Your task to perform on an android device: When is my next meeting? Image 0: 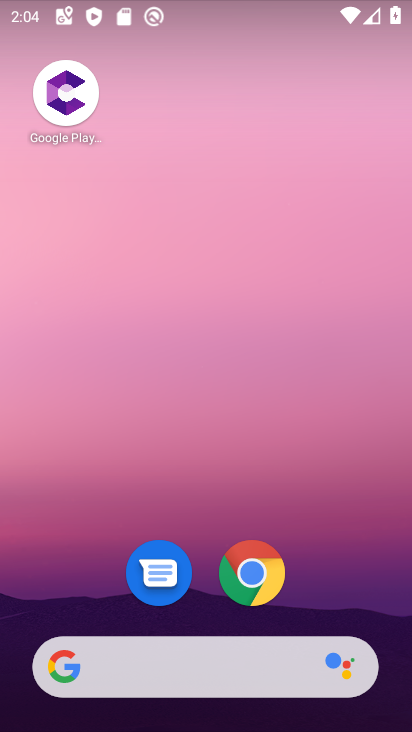
Step 0: drag from (203, 583) to (227, 203)
Your task to perform on an android device: When is my next meeting? Image 1: 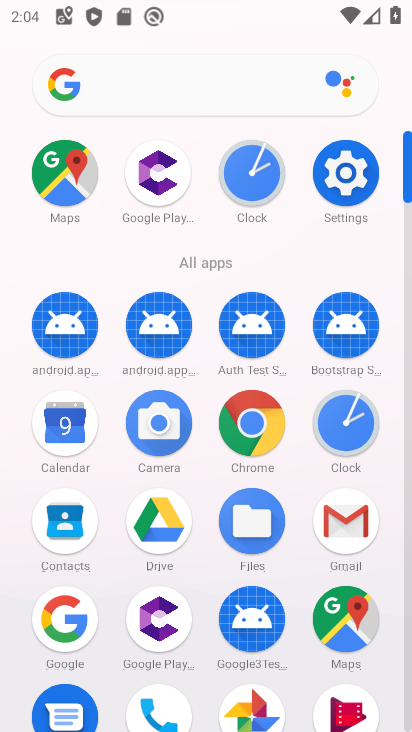
Step 1: click (62, 427)
Your task to perform on an android device: When is my next meeting? Image 2: 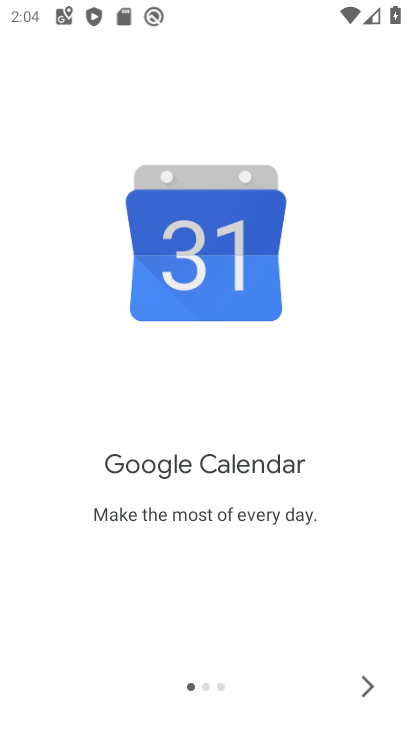
Step 2: click (361, 672)
Your task to perform on an android device: When is my next meeting? Image 3: 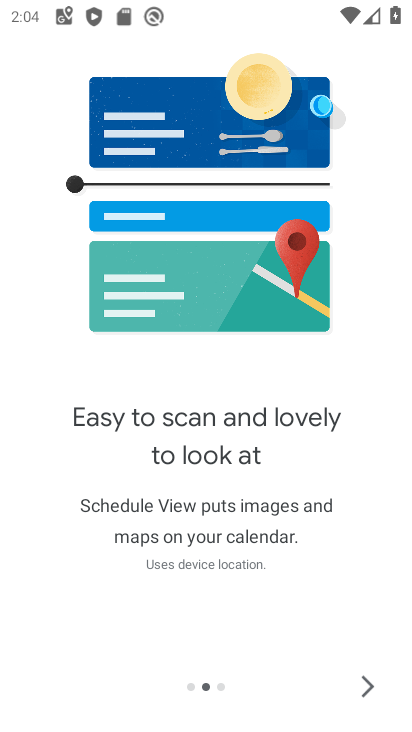
Step 3: click (362, 677)
Your task to perform on an android device: When is my next meeting? Image 4: 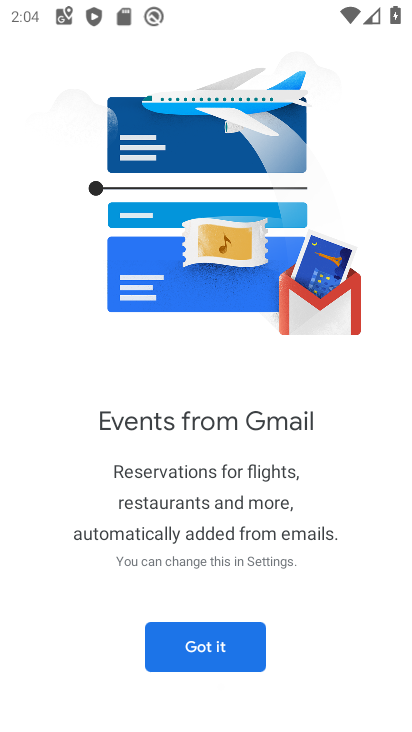
Step 4: click (362, 677)
Your task to perform on an android device: When is my next meeting? Image 5: 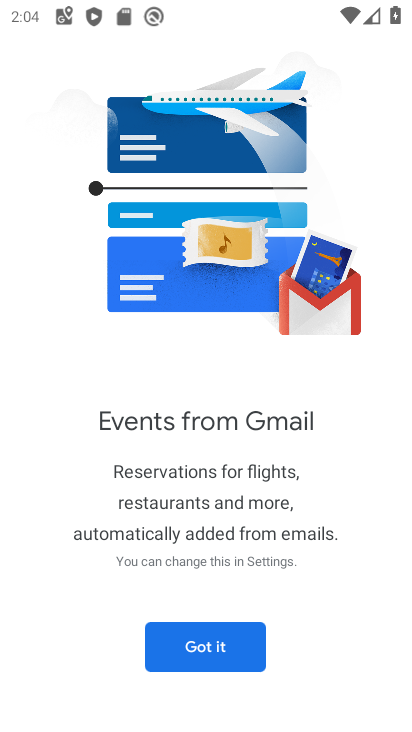
Step 5: click (227, 640)
Your task to perform on an android device: When is my next meeting? Image 6: 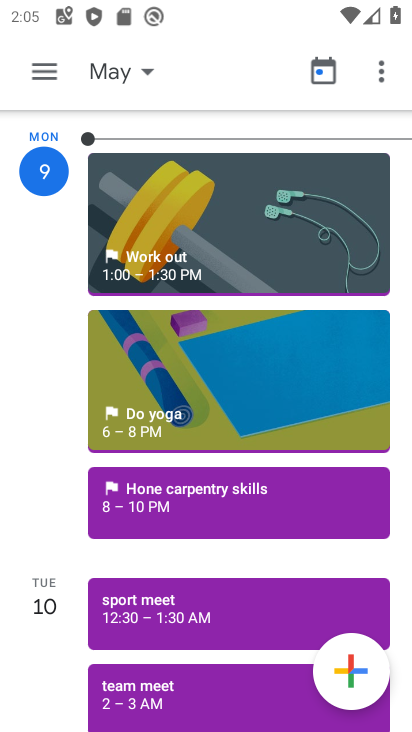
Step 6: click (157, 72)
Your task to perform on an android device: When is my next meeting? Image 7: 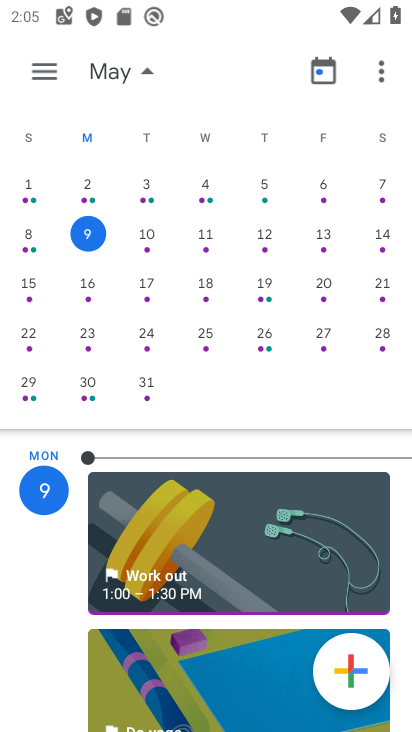
Step 7: click (144, 226)
Your task to perform on an android device: When is my next meeting? Image 8: 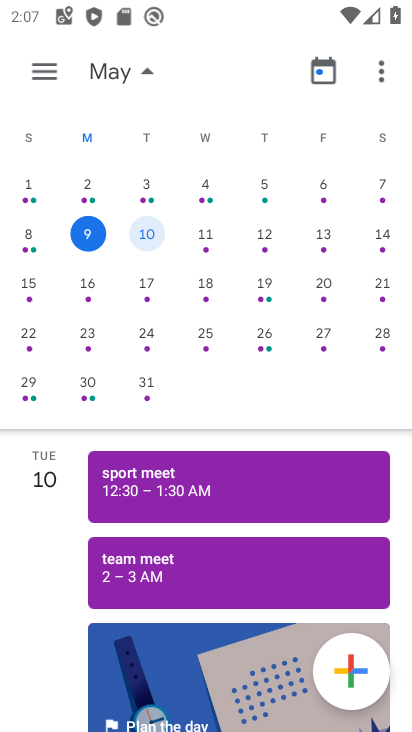
Step 8: task complete